Your task to perform on an android device: stop showing notifications on the lock screen Image 0: 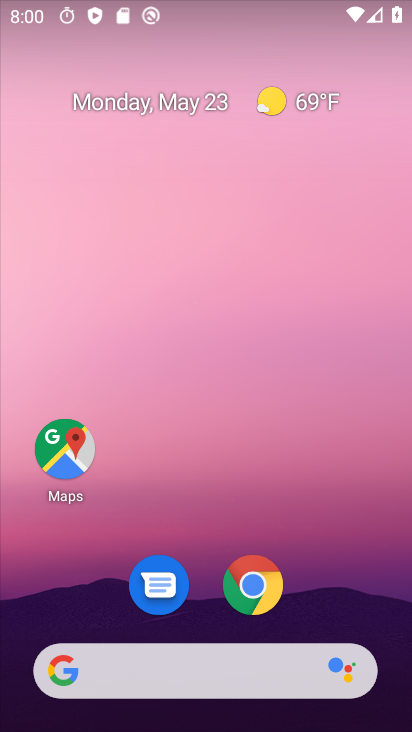
Step 0: drag from (193, 464) to (229, 19)
Your task to perform on an android device: stop showing notifications on the lock screen Image 1: 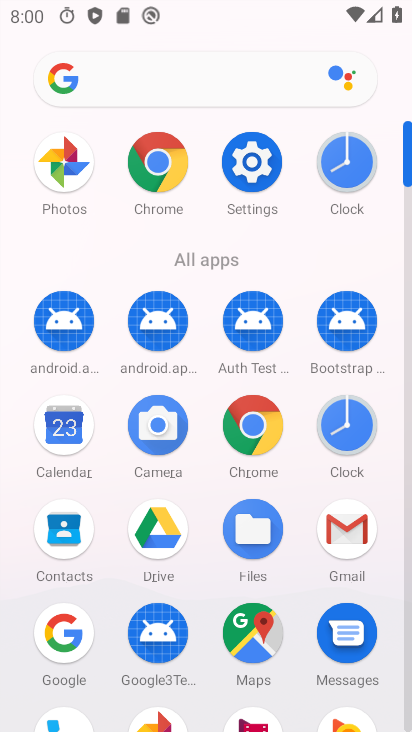
Step 1: click (257, 166)
Your task to perform on an android device: stop showing notifications on the lock screen Image 2: 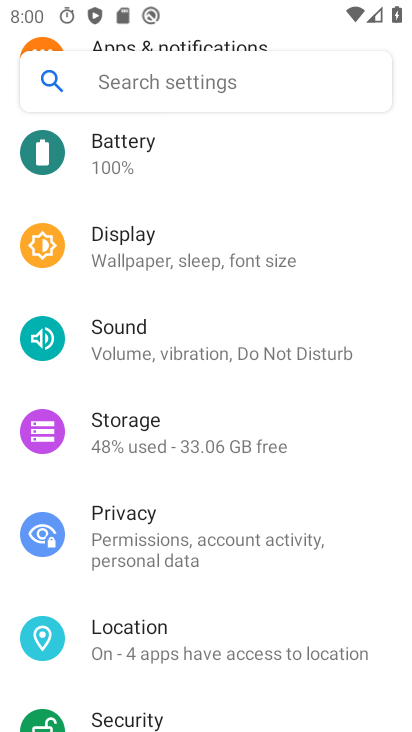
Step 2: drag from (231, 258) to (214, 517)
Your task to perform on an android device: stop showing notifications on the lock screen Image 3: 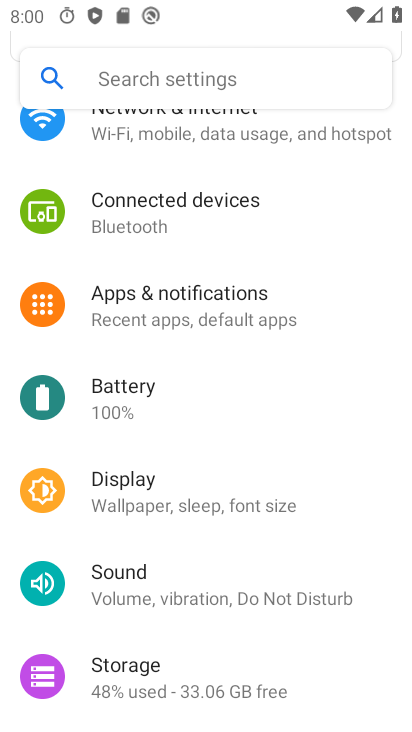
Step 3: click (237, 312)
Your task to perform on an android device: stop showing notifications on the lock screen Image 4: 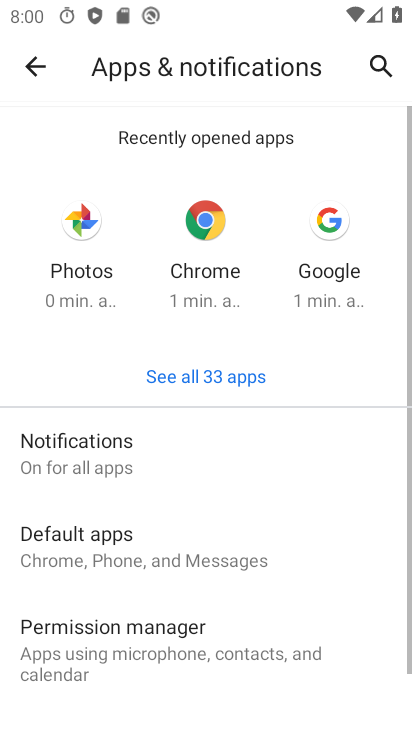
Step 4: click (178, 456)
Your task to perform on an android device: stop showing notifications on the lock screen Image 5: 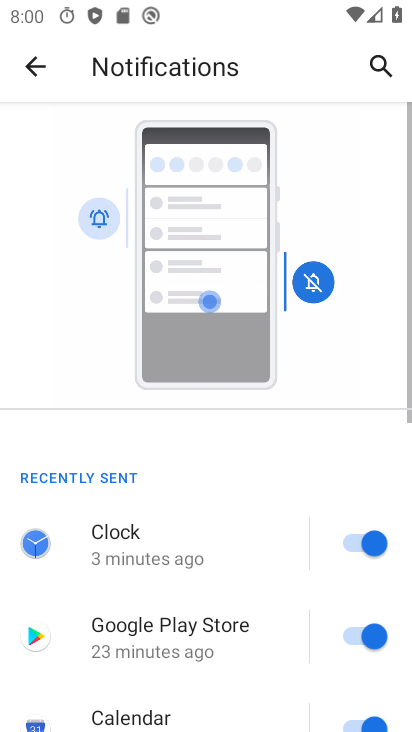
Step 5: drag from (207, 497) to (278, 20)
Your task to perform on an android device: stop showing notifications on the lock screen Image 6: 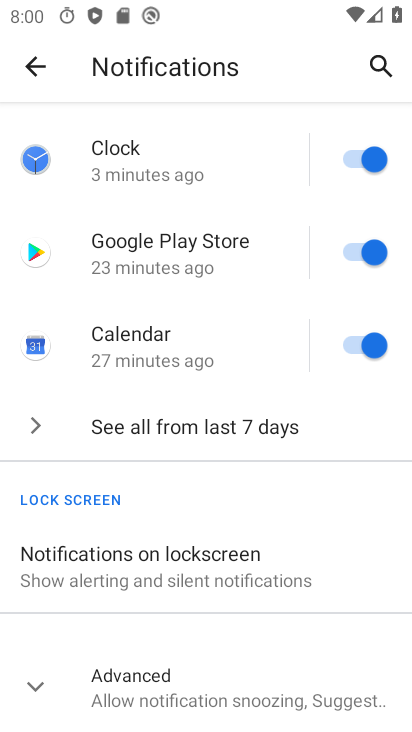
Step 6: click (179, 560)
Your task to perform on an android device: stop showing notifications on the lock screen Image 7: 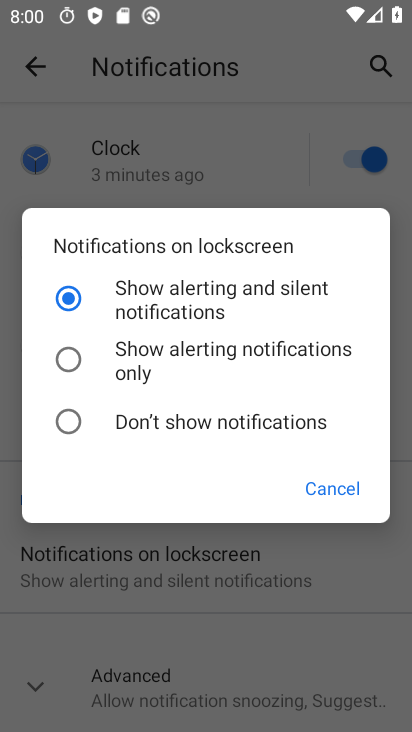
Step 7: click (63, 418)
Your task to perform on an android device: stop showing notifications on the lock screen Image 8: 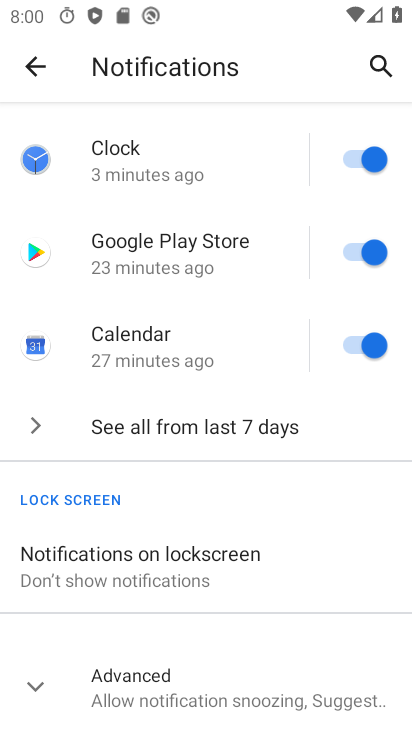
Step 8: task complete